Your task to perform on an android device: Open settings on Google Maps Image 0: 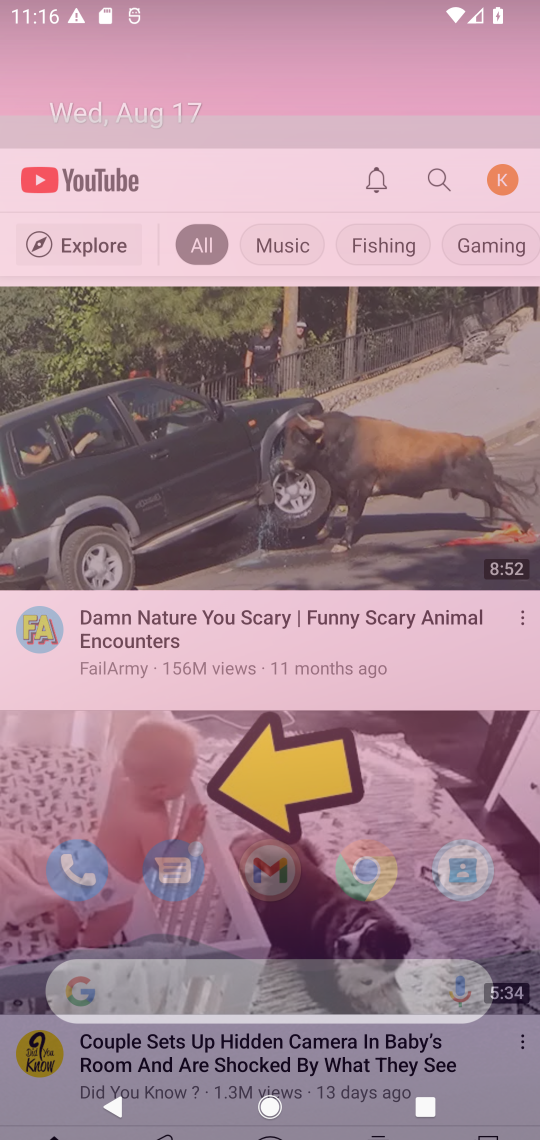
Step 0: press home button
Your task to perform on an android device: Open settings on Google Maps Image 1: 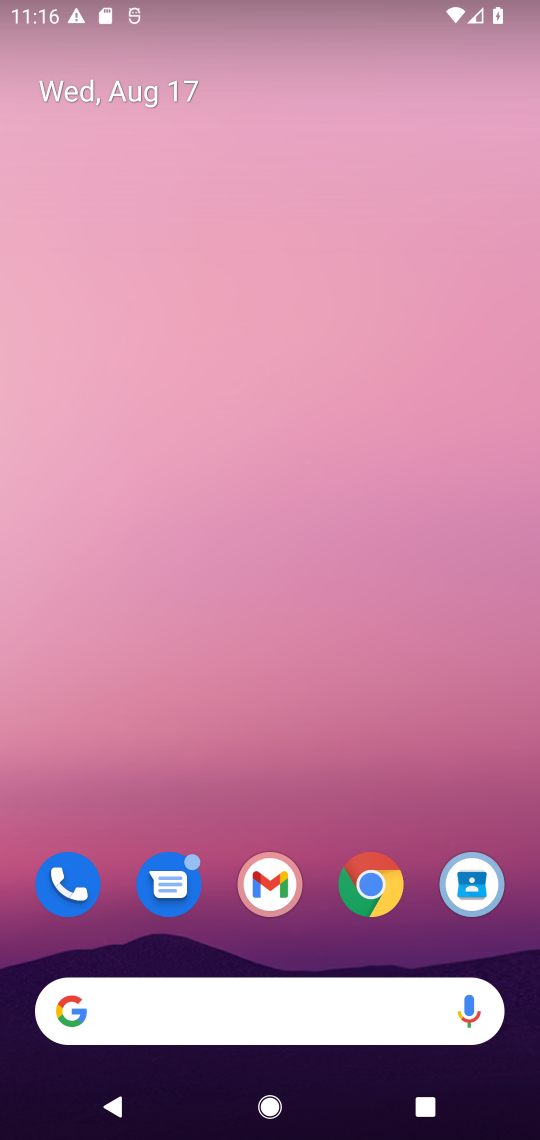
Step 1: drag from (313, 935) to (85, 145)
Your task to perform on an android device: Open settings on Google Maps Image 2: 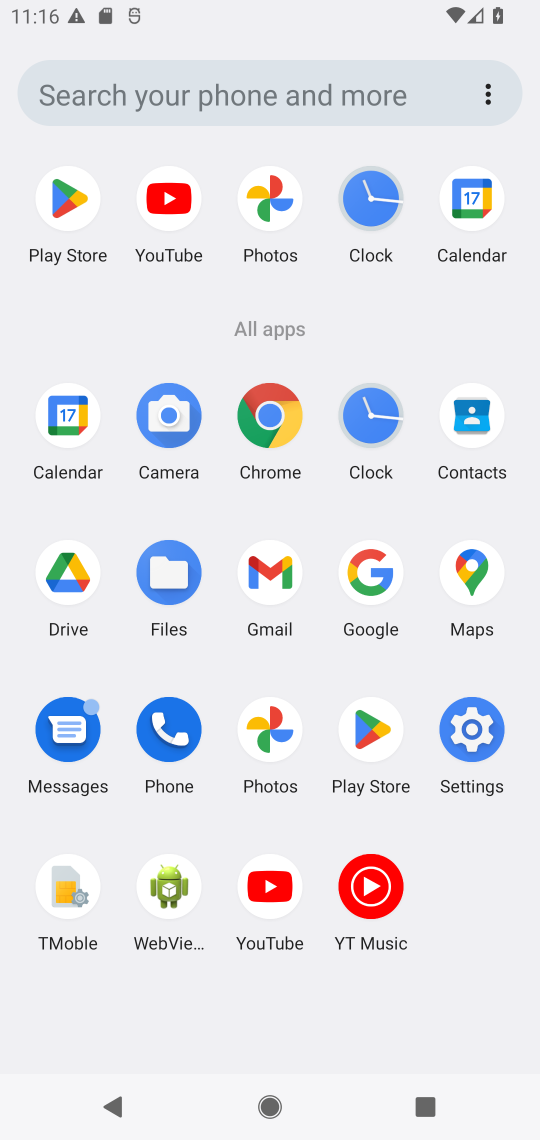
Step 2: click (470, 577)
Your task to perform on an android device: Open settings on Google Maps Image 3: 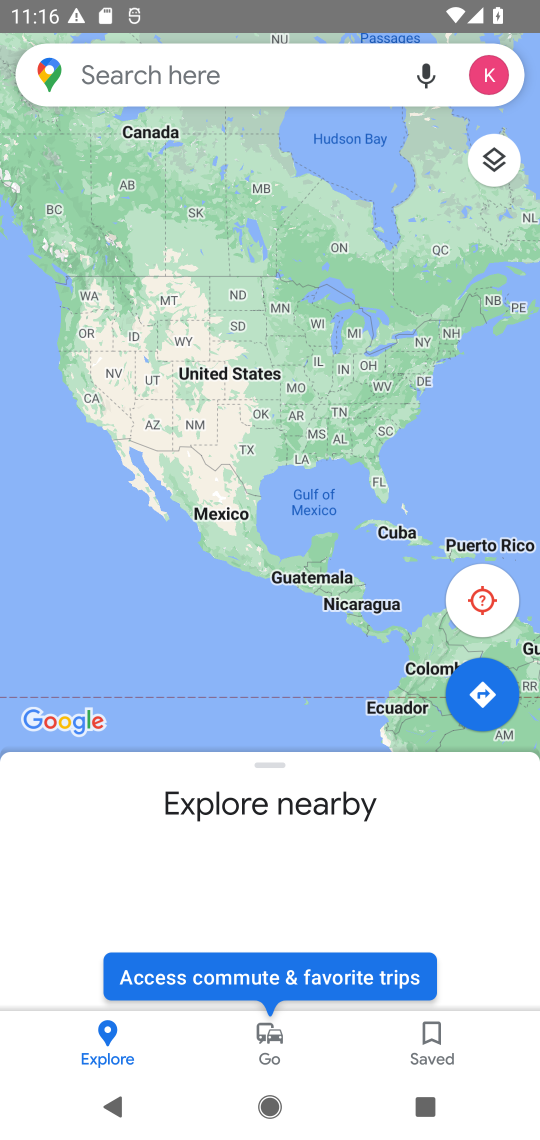
Step 3: click (484, 79)
Your task to perform on an android device: Open settings on Google Maps Image 4: 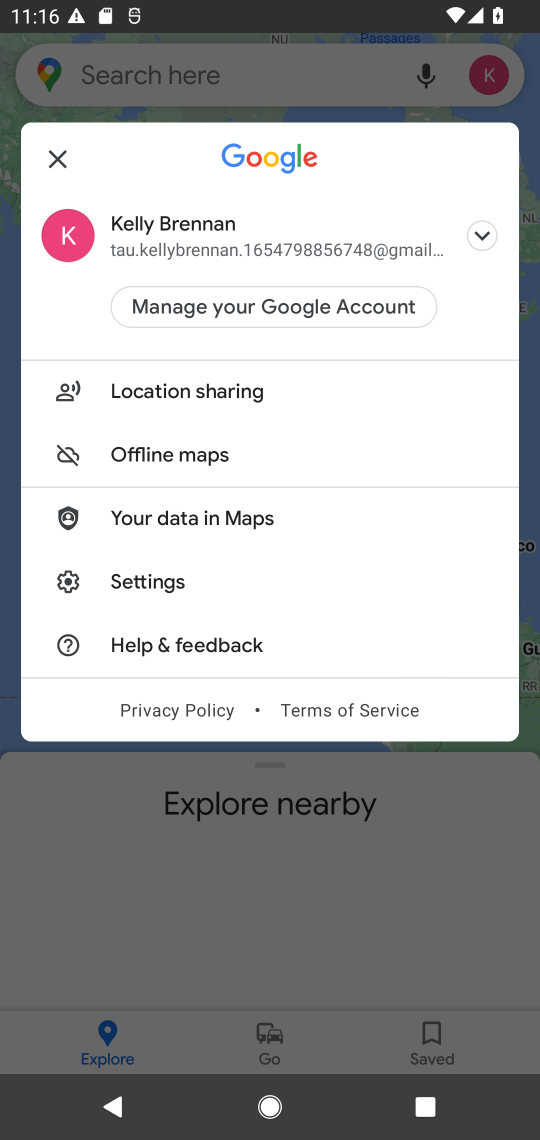
Step 4: click (144, 585)
Your task to perform on an android device: Open settings on Google Maps Image 5: 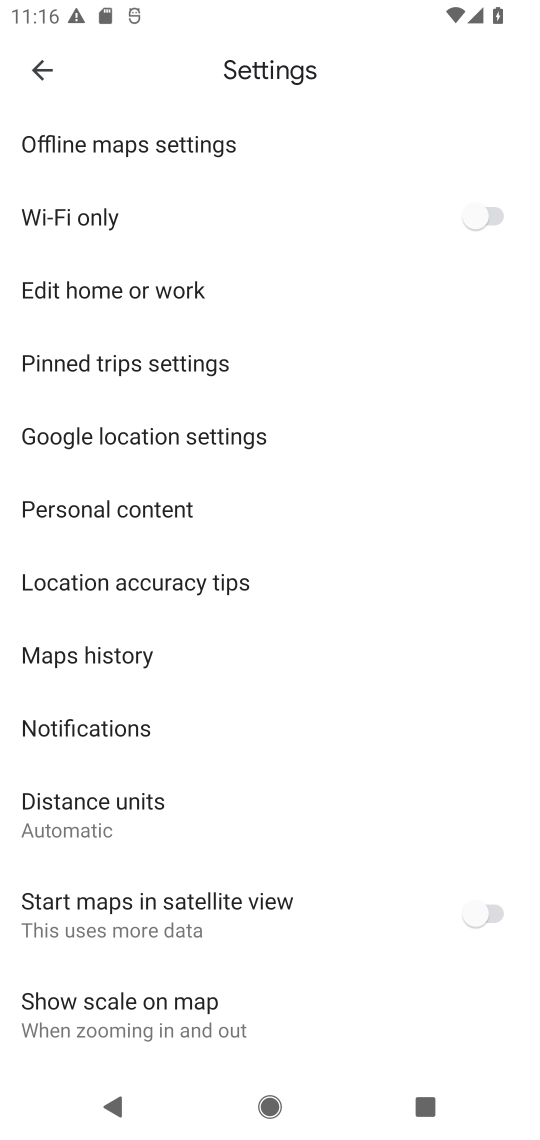
Step 5: task complete